Your task to perform on an android device: Go to Google Image 0: 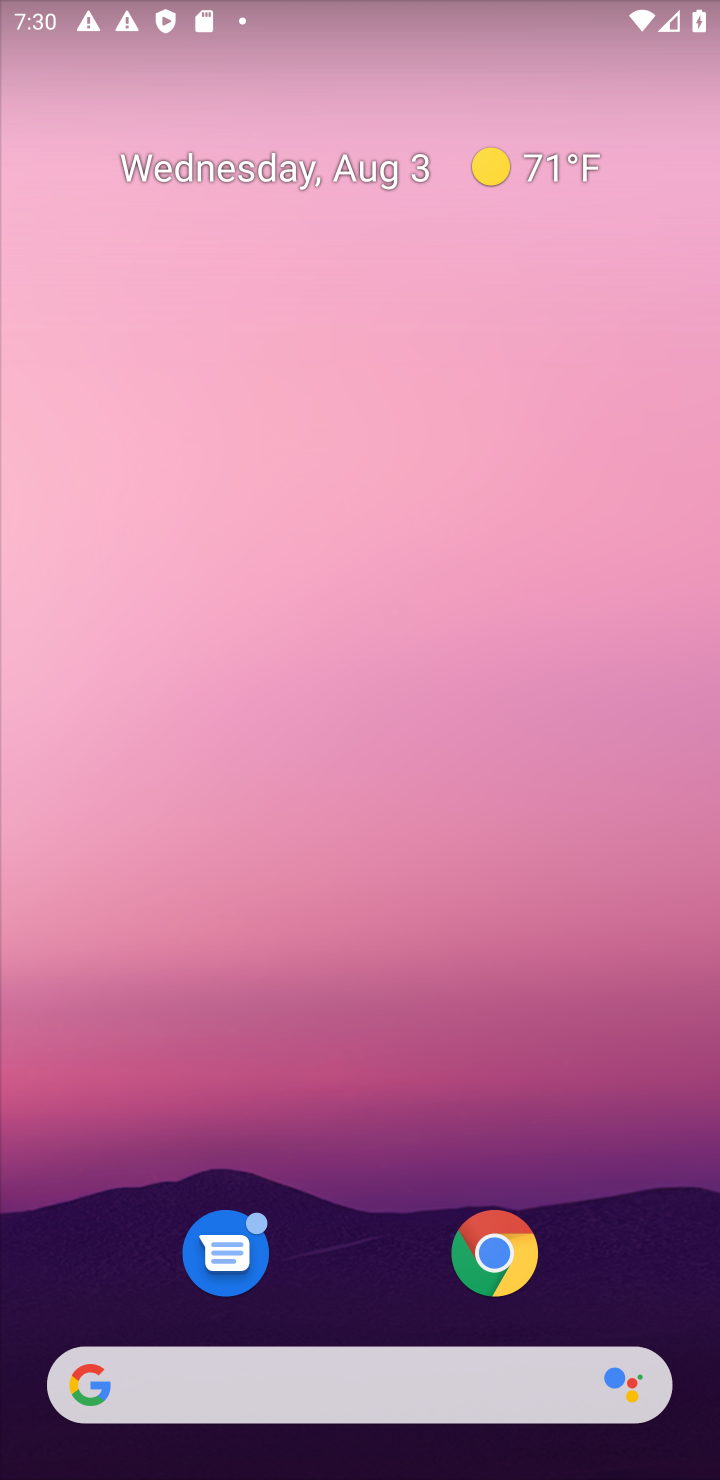
Step 0: drag from (386, 1299) to (435, 240)
Your task to perform on an android device: Go to Google Image 1: 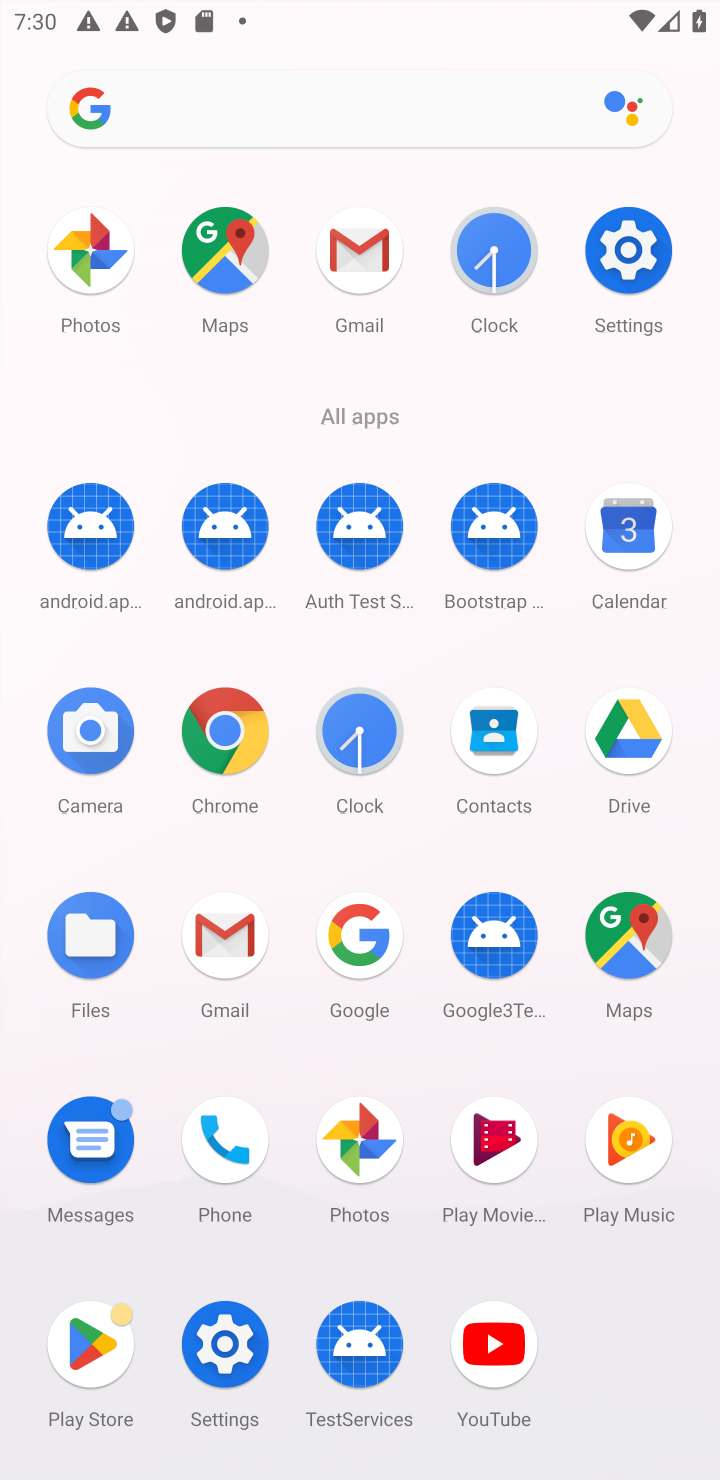
Step 1: click (355, 946)
Your task to perform on an android device: Go to Google Image 2: 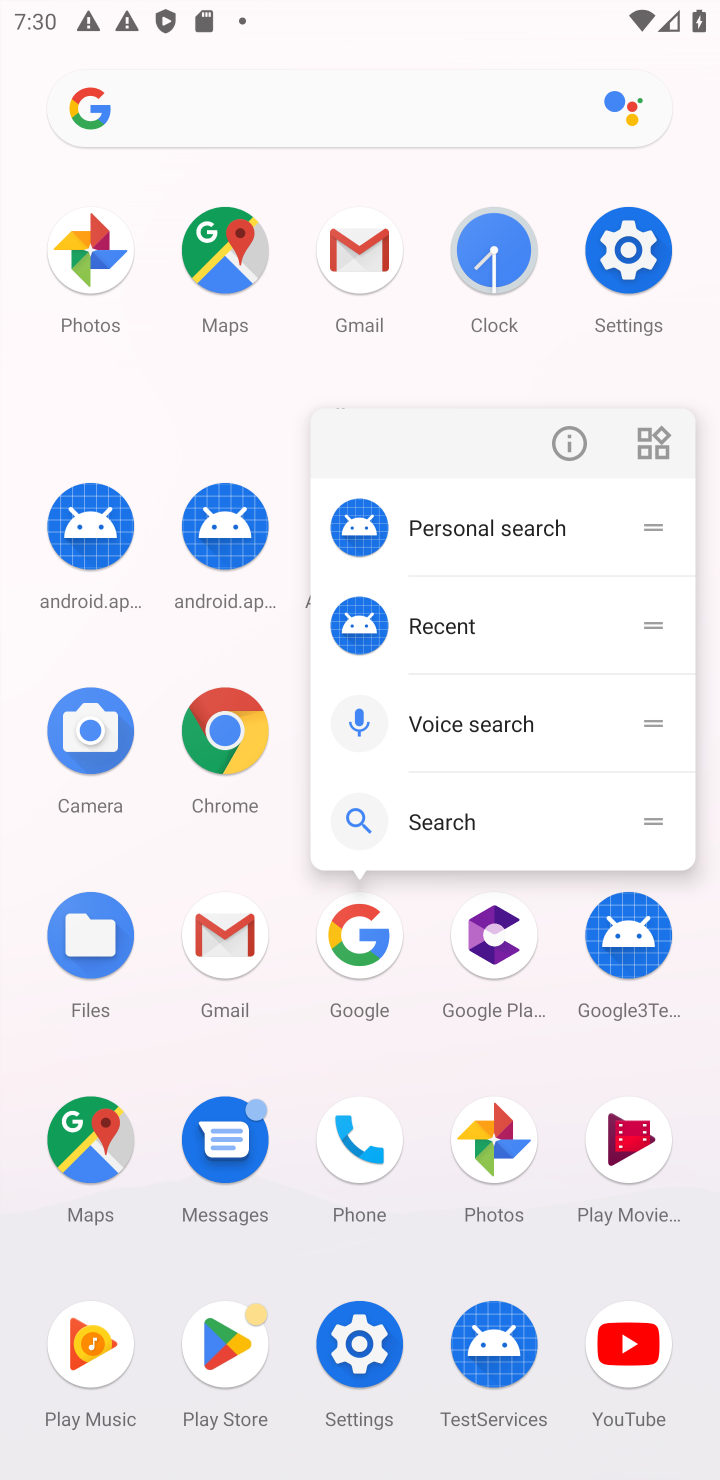
Step 2: click (378, 939)
Your task to perform on an android device: Go to Google Image 3: 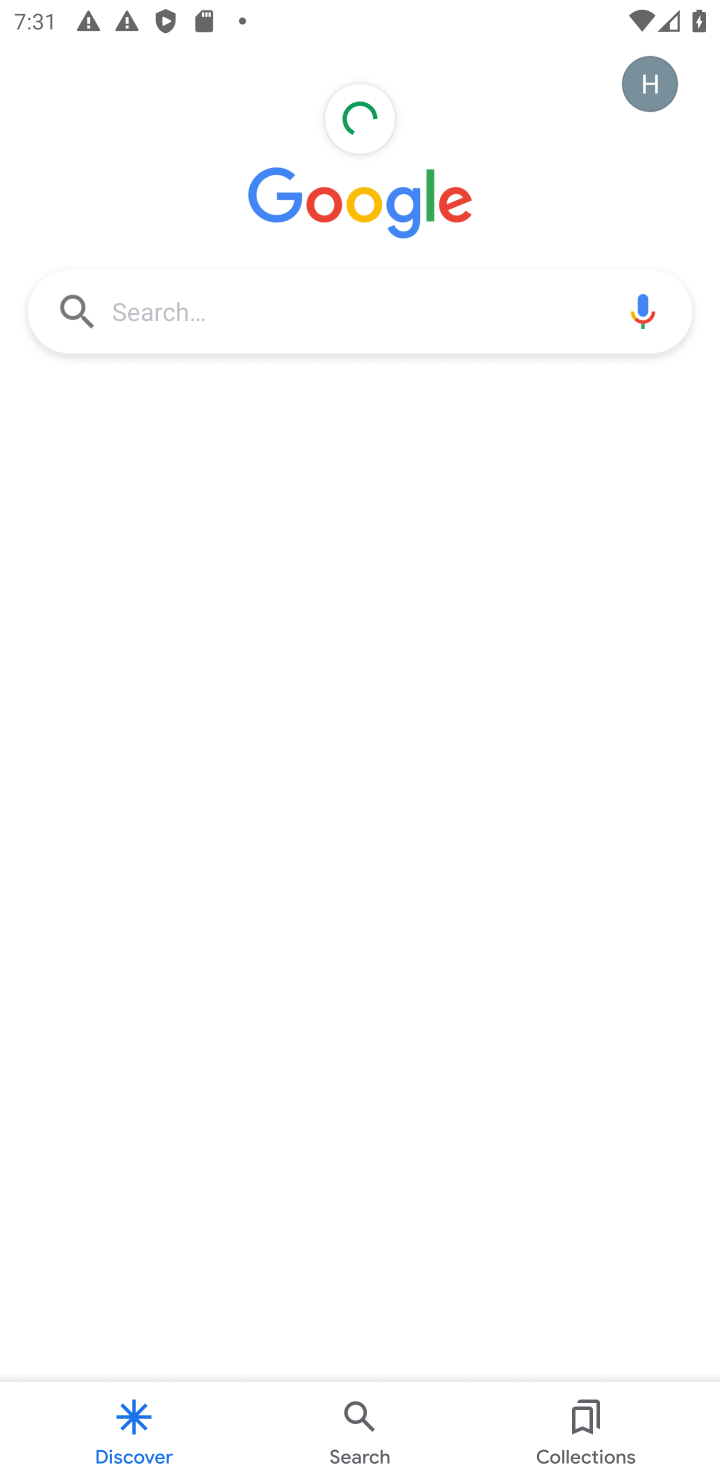
Step 3: task complete